Your task to perform on an android device: turn off data saver in the chrome app Image 0: 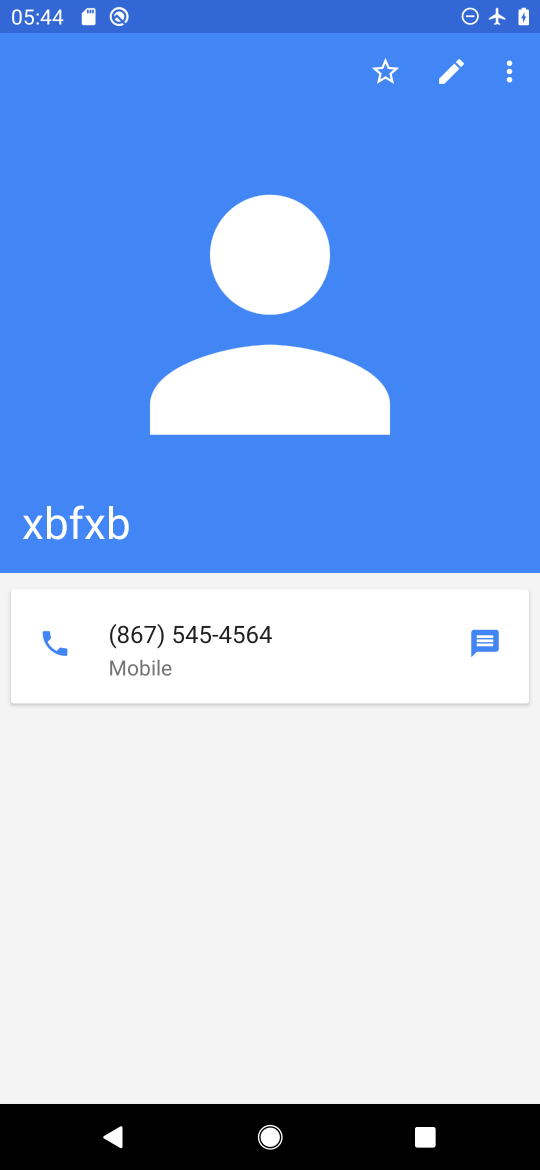
Step 0: press home button
Your task to perform on an android device: turn off data saver in the chrome app Image 1: 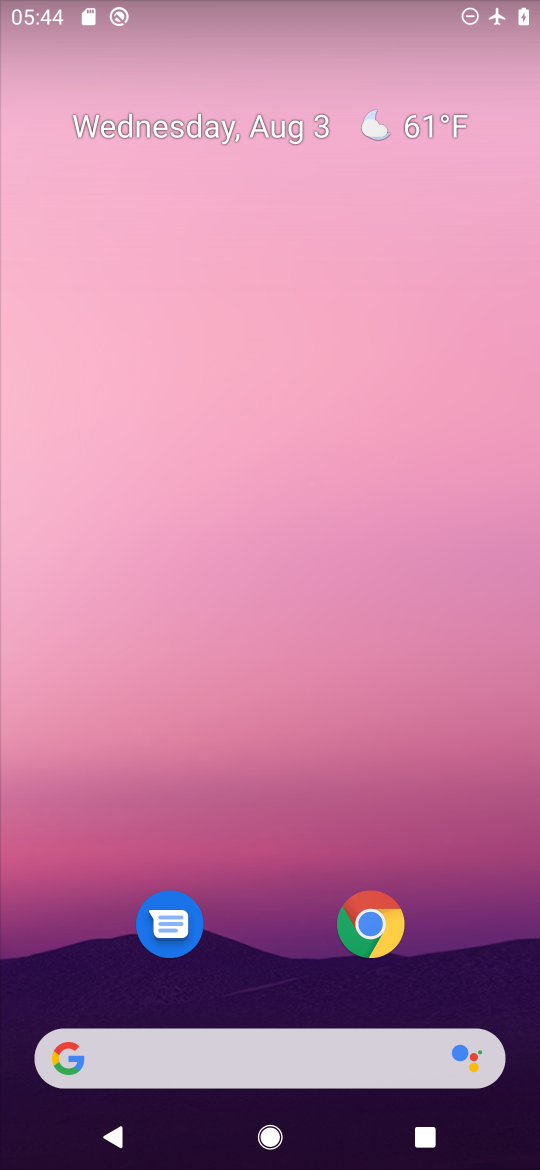
Step 1: click (361, 920)
Your task to perform on an android device: turn off data saver in the chrome app Image 2: 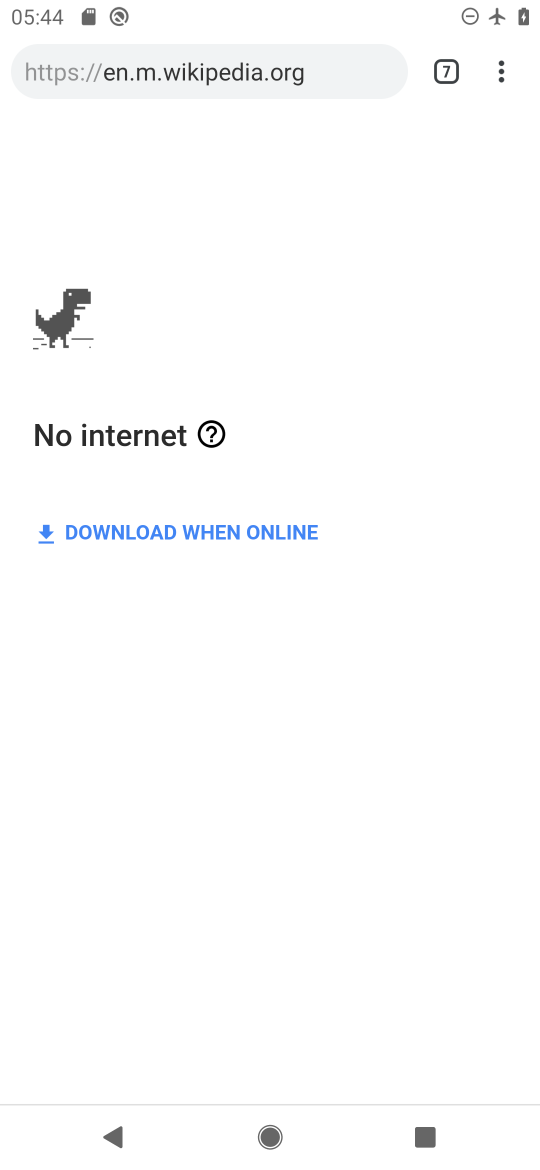
Step 2: click (505, 62)
Your task to perform on an android device: turn off data saver in the chrome app Image 3: 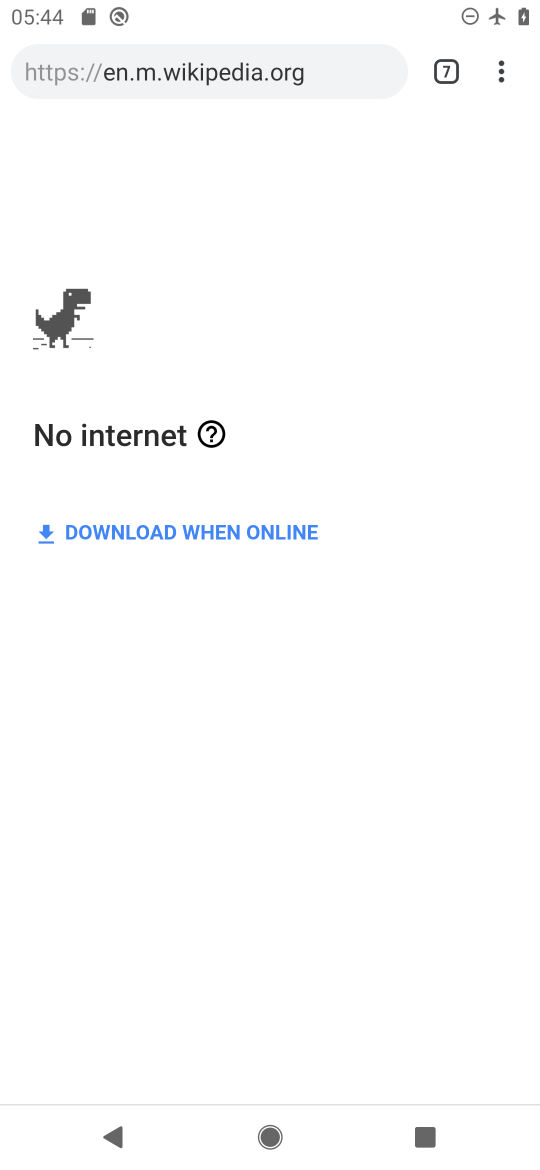
Step 3: click (492, 81)
Your task to perform on an android device: turn off data saver in the chrome app Image 4: 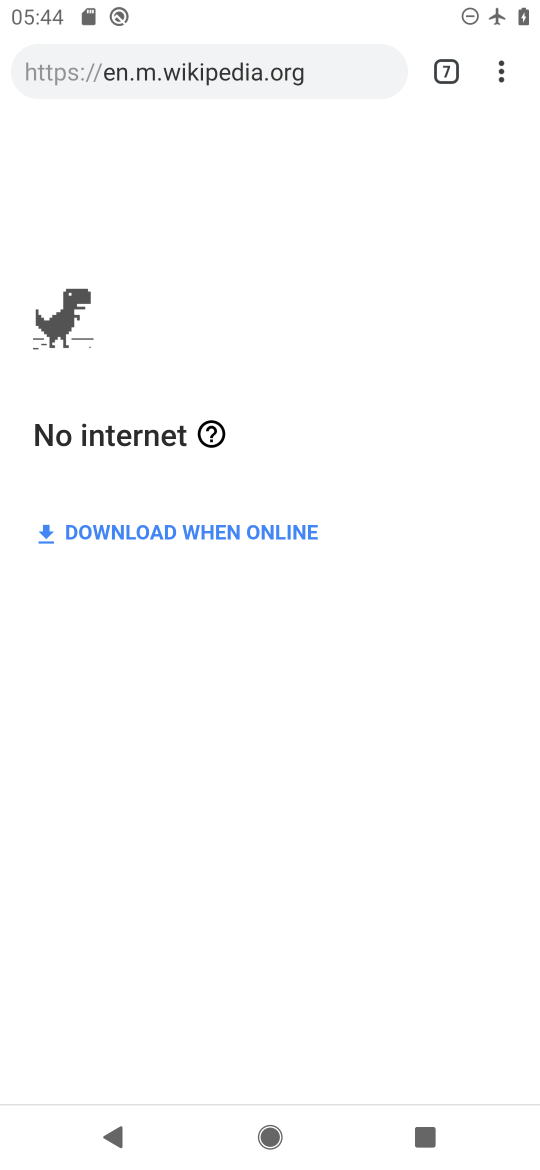
Step 4: drag from (493, 80) to (265, 793)
Your task to perform on an android device: turn off data saver in the chrome app Image 5: 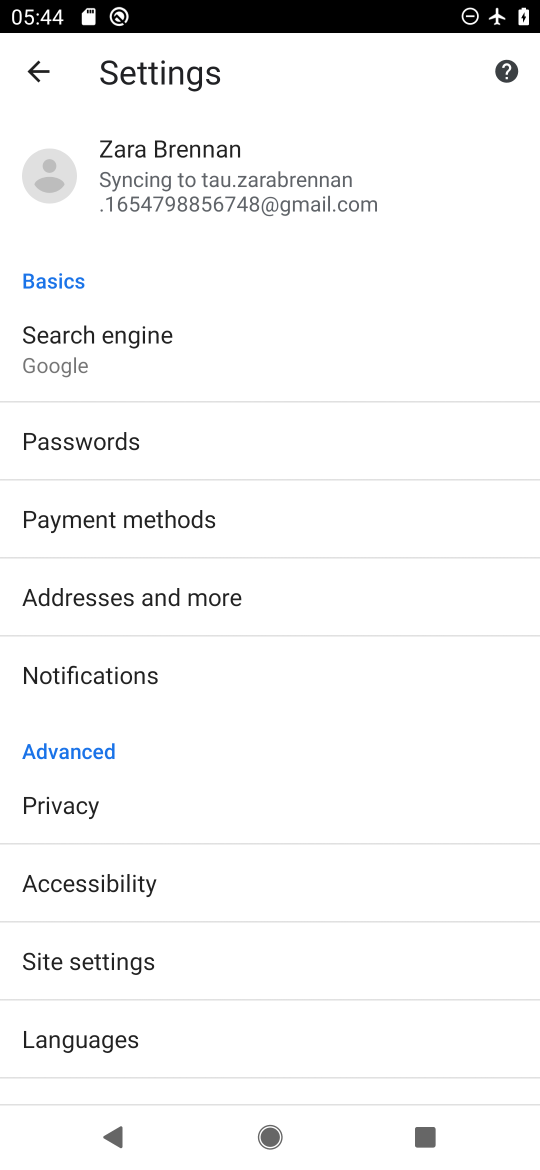
Step 5: drag from (191, 1029) to (188, 610)
Your task to perform on an android device: turn off data saver in the chrome app Image 6: 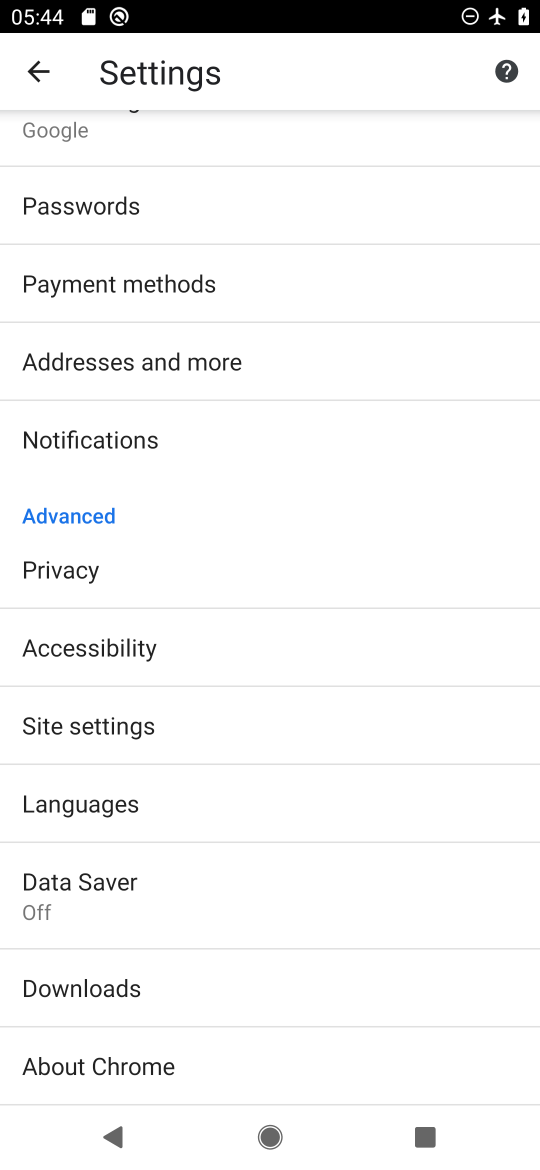
Step 6: click (108, 878)
Your task to perform on an android device: turn off data saver in the chrome app Image 7: 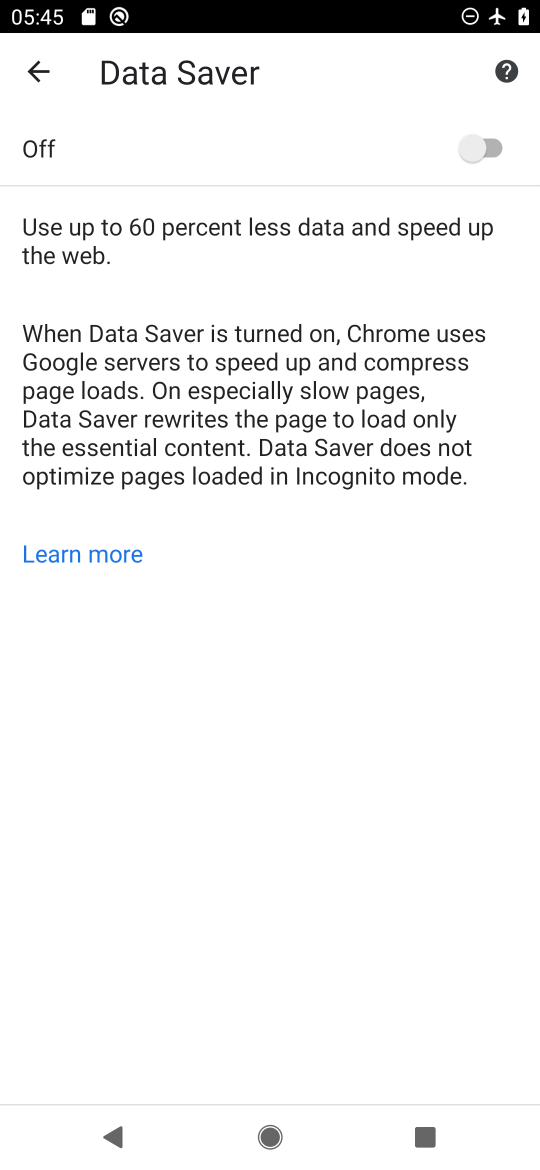
Step 7: task complete